Your task to perform on an android device: open chrome privacy settings Image 0: 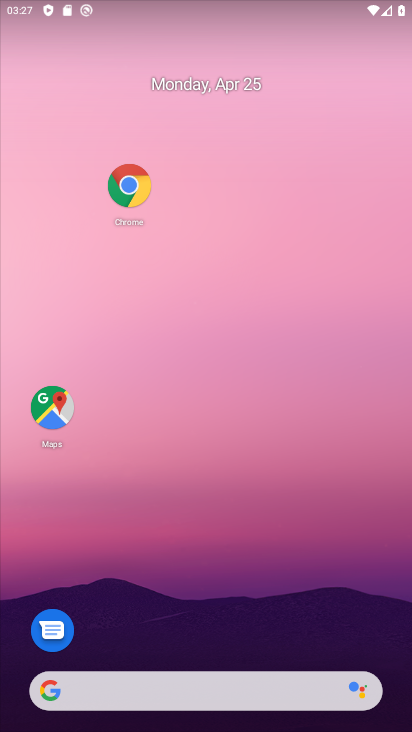
Step 0: drag from (177, 646) to (209, 168)
Your task to perform on an android device: open chrome privacy settings Image 1: 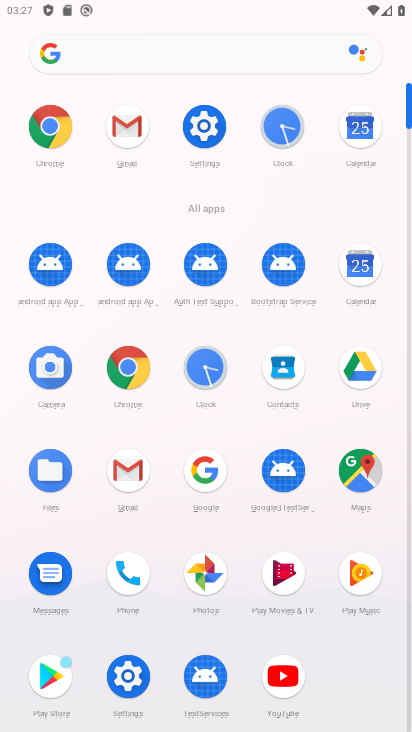
Step 1: click (124, 666)
Your task to perform on an android device: open chrome privacy settings Image 2: 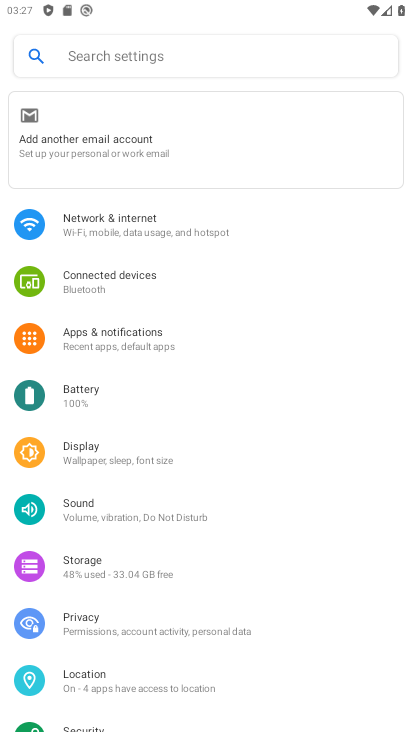
Step 2: press home button
Your task to perform on an android device: open chrome privacy settings Image 3: 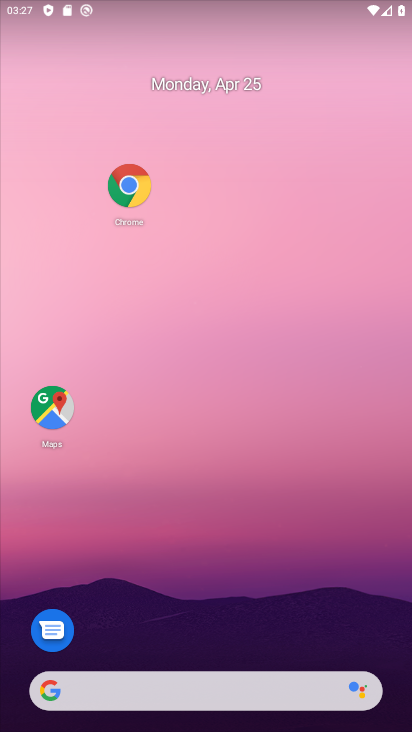
Step 3: click (127, 183)
Your task to perform on an android device: open chrome privacy settings Image 4: 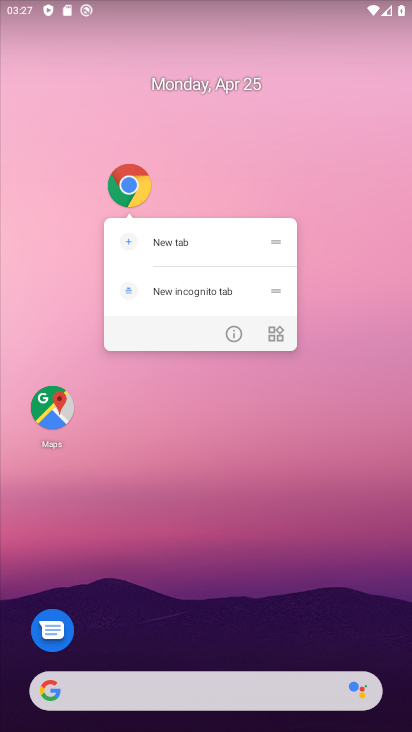
Step 4: click (236, 335)
Your task to perform on an android device: open chrome privacy settings Image 5: 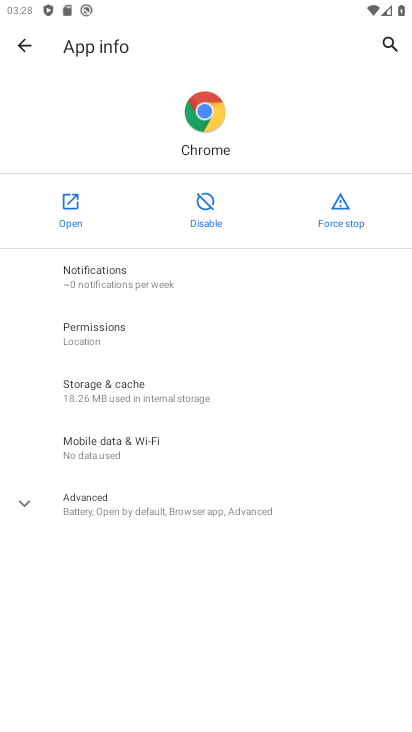
Step 5: click (77, 195)
Your task to perform on an android device: open chrome privacy settings Image 6: 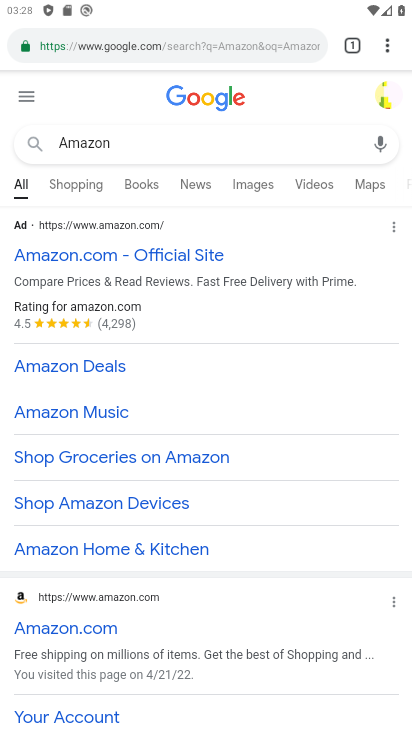
Step 6: click (387, 50)
Your task to perform on an android device: open chrome privacy settings Image 7: 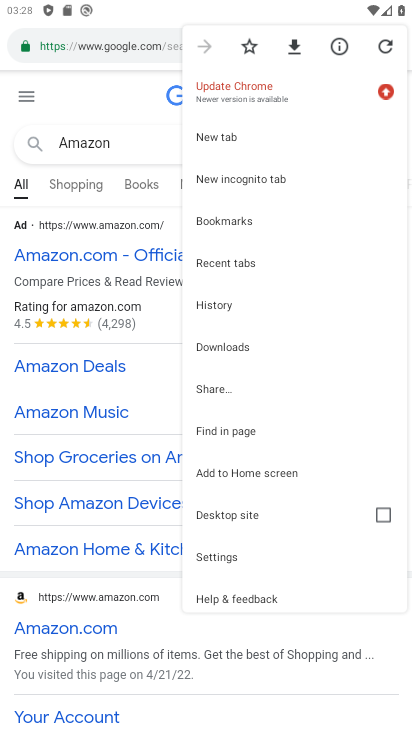
Step 7: click (234, 558)
Your task to perform on an android device: open chrome privacy settings Image 8: 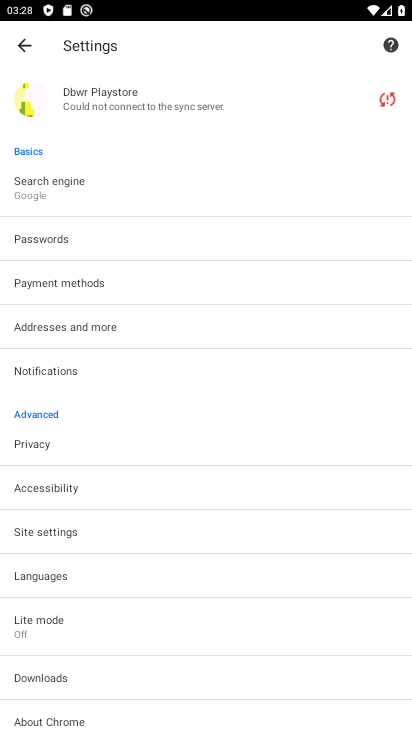
Step 8: click (46, 449)
Your task to perform on an android device: open chrome privacy settings Image 9: 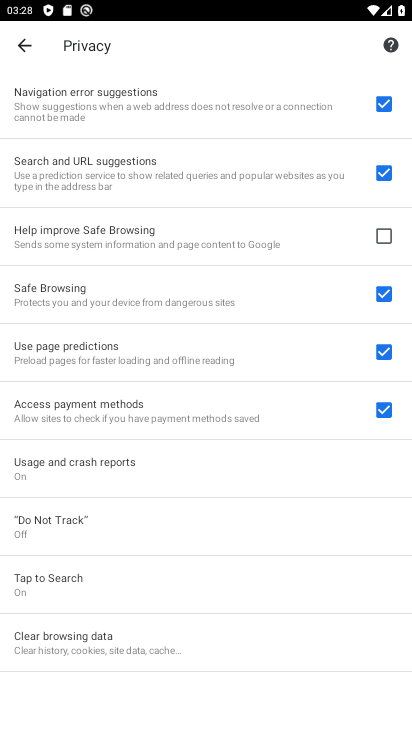
Step 9: task complete